Your task to perform on an android device: add a contact in the contacts app Image 0: 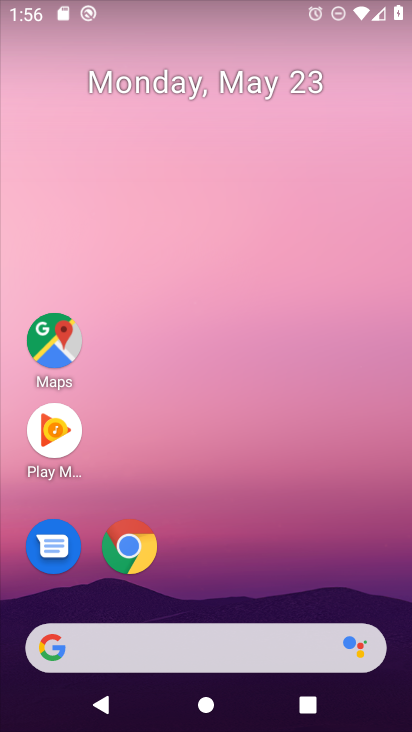
Step 0: drag from (201, 597) to (203, 195)
Your task to perform on an android device: add a contact in the contacts app Image 1: 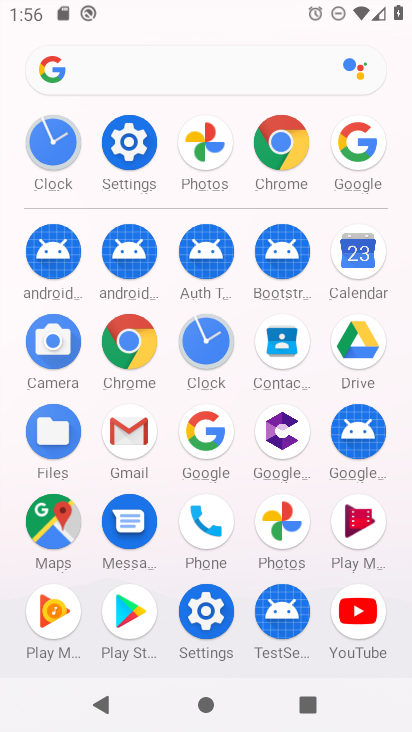
Step 1: click (291, 347)
Your task to perform on an android device: add a contact in the contacts app Image 2: 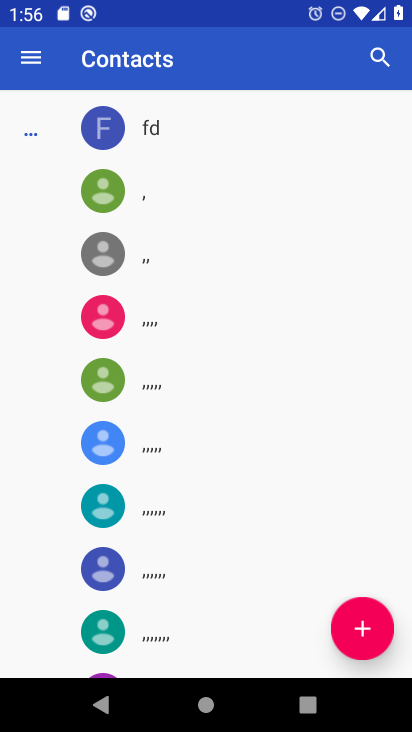
Step 2: click (361, 625)
Your task to perform on an android device: add a contact in the contacts app Image 3: 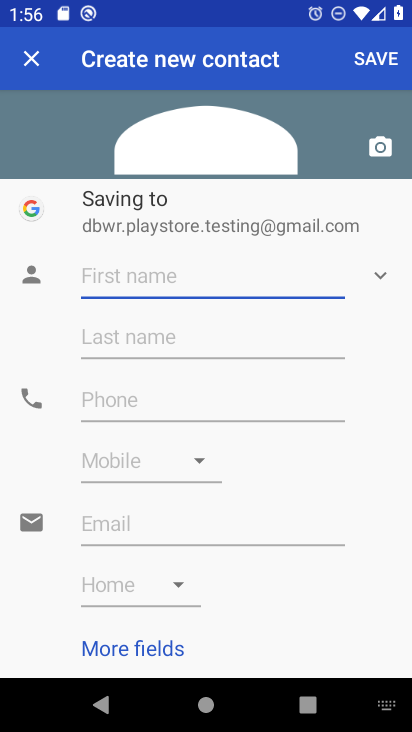
Step 3: type "guggu"
Your task to perform on an android device: add a contact in the contacts app Image 4: 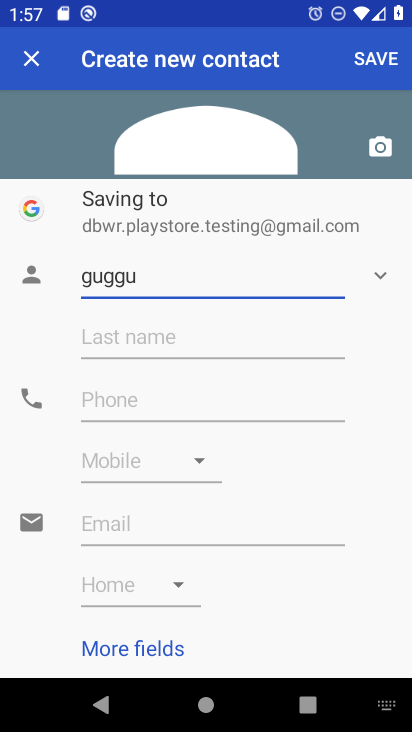
Step 4: click (217, 409)
Your task to perform on an android device: add a contact in the contacts app Image 5: 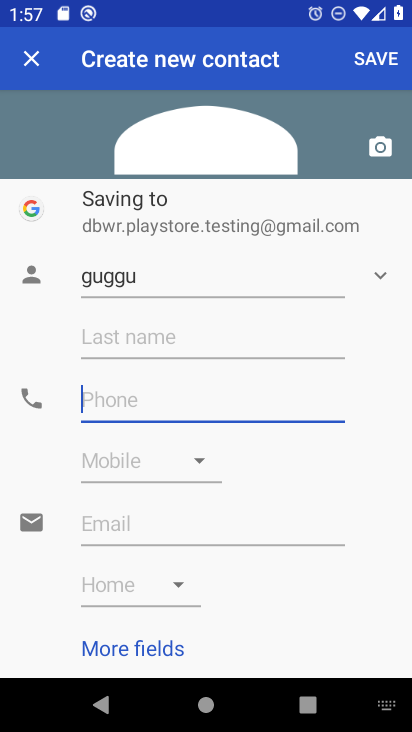
Step 5: type "98986758"
Your task to perform on an android device: add a contact in the contacts app Image 6: 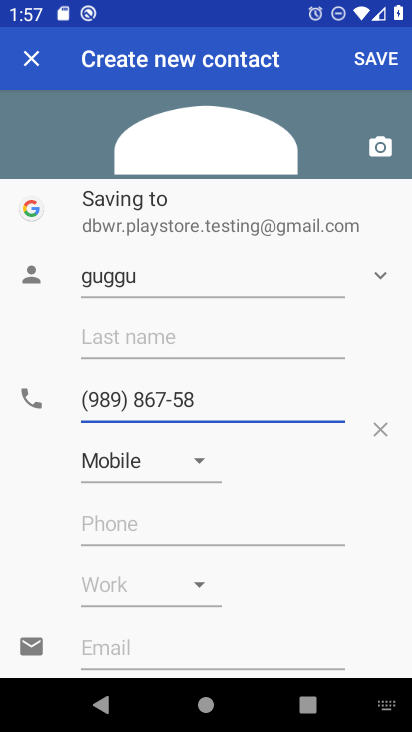
Step 6: click (391, 69)
Your task to perform on an android device: add a contact in the contacts app Image 7: 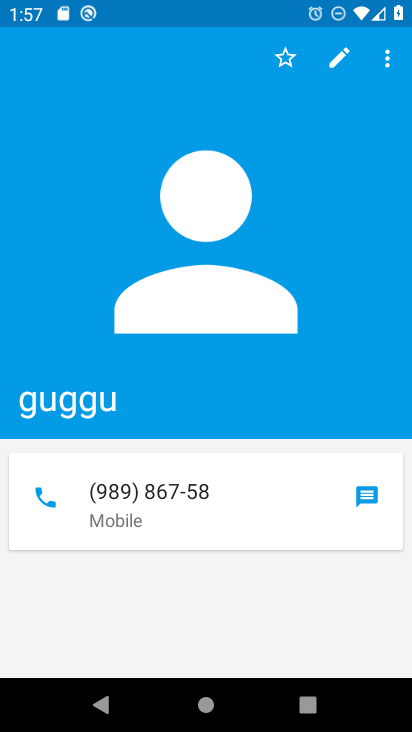
Step 7: task complete